Your task to perform on an android device: toggle notification dots Image 0: 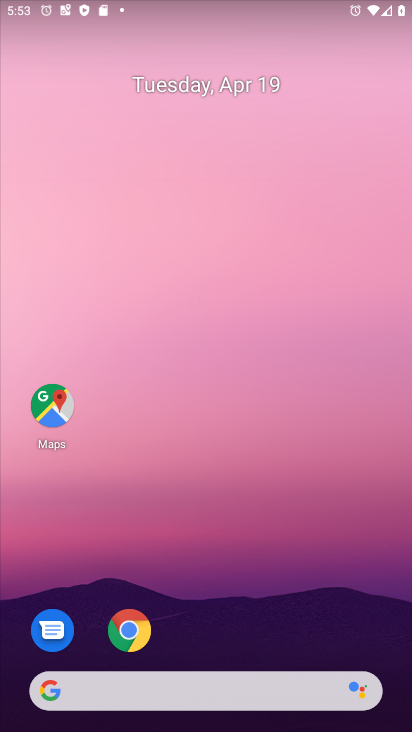
Step 0: drag from (340, 594) to (354, 19)
Your task to perform on an android device: toggle notification dots Image 1: 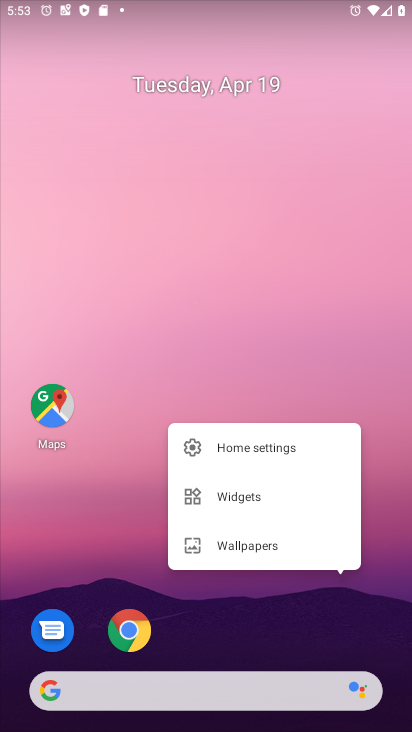
Step 1: click (345, 212)
Your task to perform on an android device: toggle notification dots Image 2: 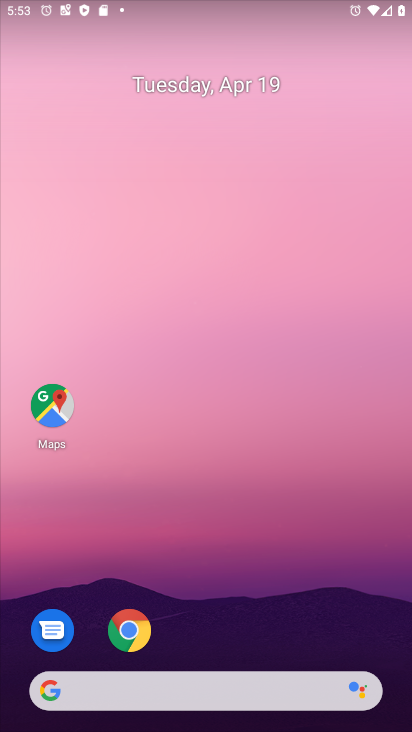
Step 2: drag from (304, 621) to (296, 151)
Your task to perform on an android device: toggle notification dots Image 3: 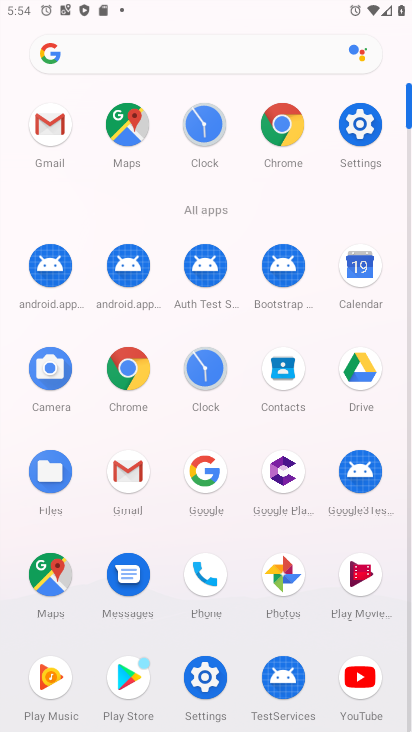
Step 3: click (361, 123)
Your task to perform on an android device: toggle notification dots Image 4: 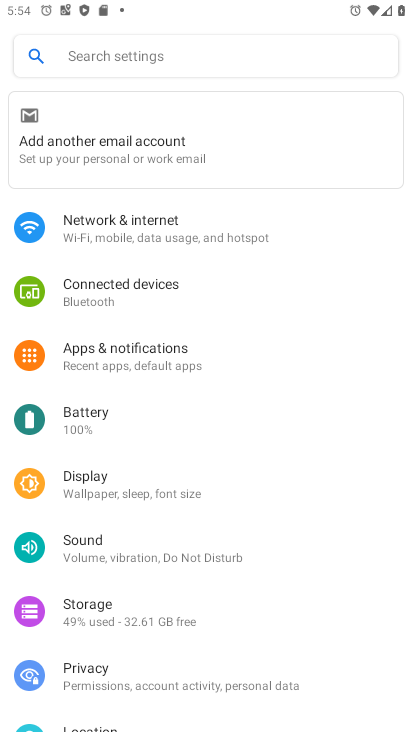
Step 4: click (119, 359)
Your task to perform on an android device: toggle notification dots Image 5: 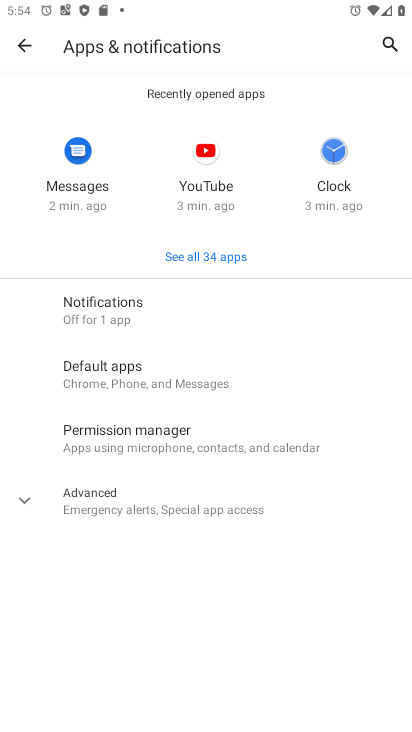
Step 5: click (153, 302)
Your task to perform on an android device: toggle notification dots Image 6: 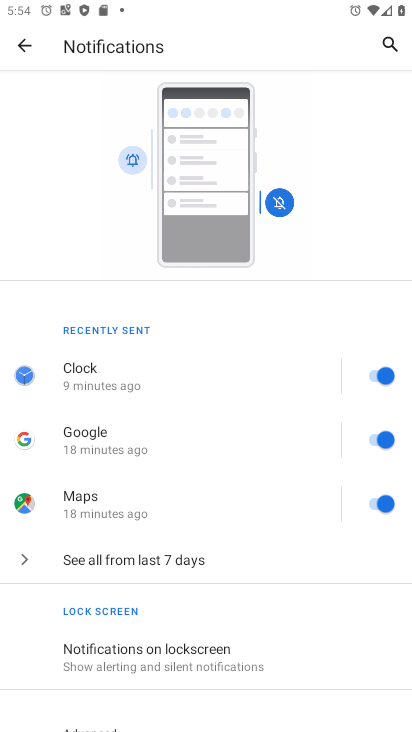
Step 6: drag from (258, 707) to (189, 380)
Your task to perform on an android device: toggle notification dots Image 7: 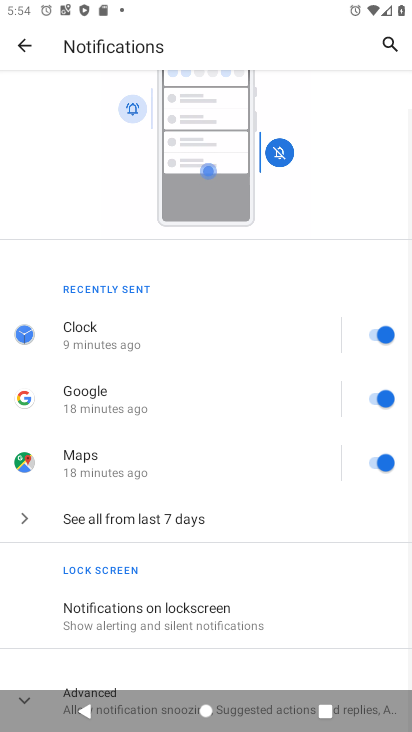
Step 7: drag from (239, 639) to (159, 384)
Your task to perform on an android device: toggle notification dots Image 8: 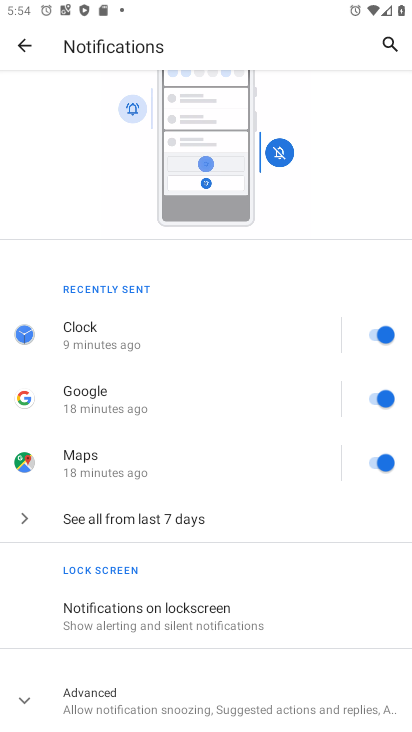
Step 8: click (146, 695)
Your task to perform on an android device: toggle notification dots Image 9: 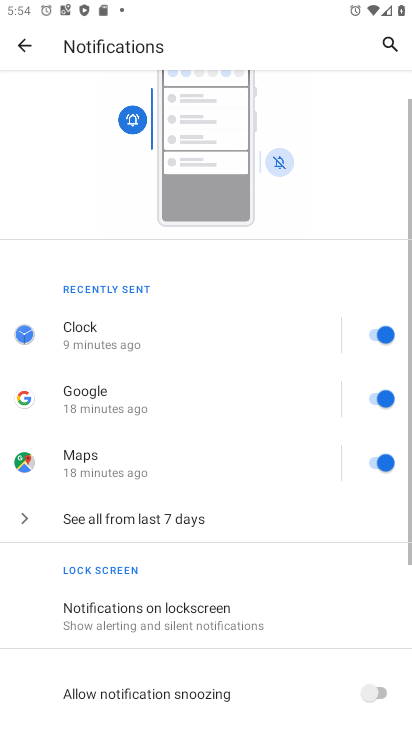
Step 9: drag from (145, 686) to (91, 528)
Your task to perform on an android device: toggle notification dots Image 10: 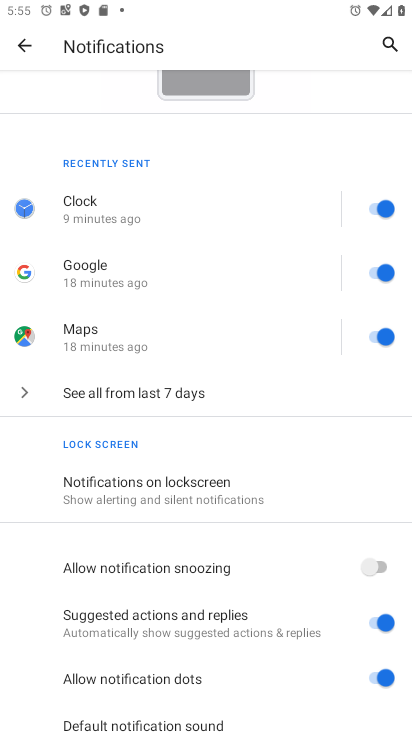
Step 10: click (381, 679)
Your task to perform on an android device: toggle notification dots Image 11: 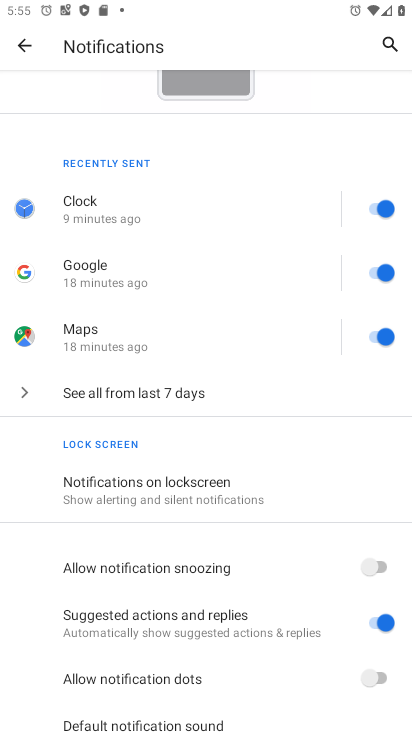
Step 11: task complete